Your task to perform on an android device: toggle javascript in the chrome app Image 0: 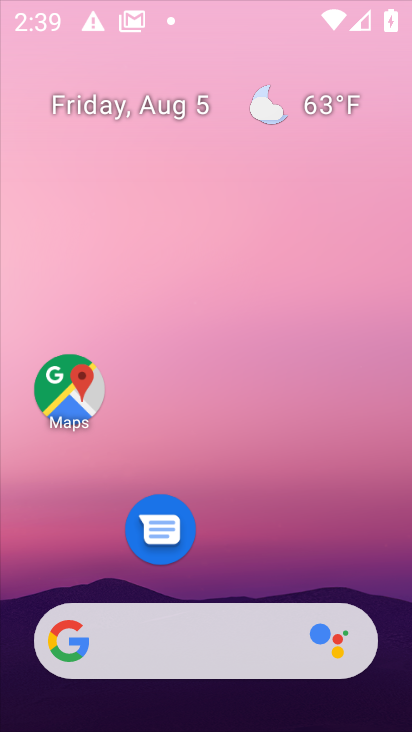
Step 0: click (244, 628)
Your task to perform on an android device: toggle javascript in the chrome app Image 1: 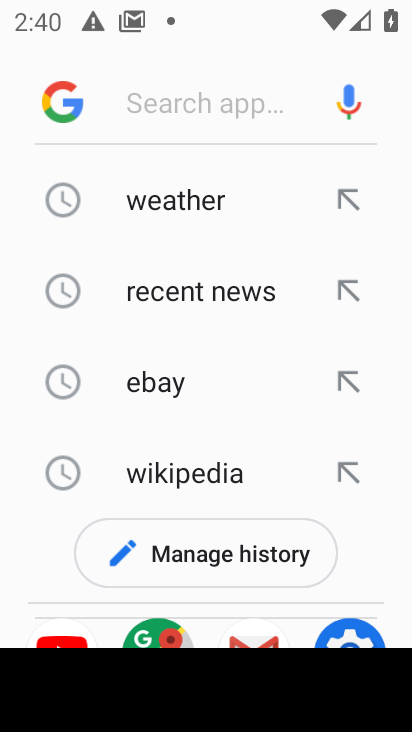
Step 1: press home button
Your task to perform on an android device: toggle javascript in the chrome app Image 2: 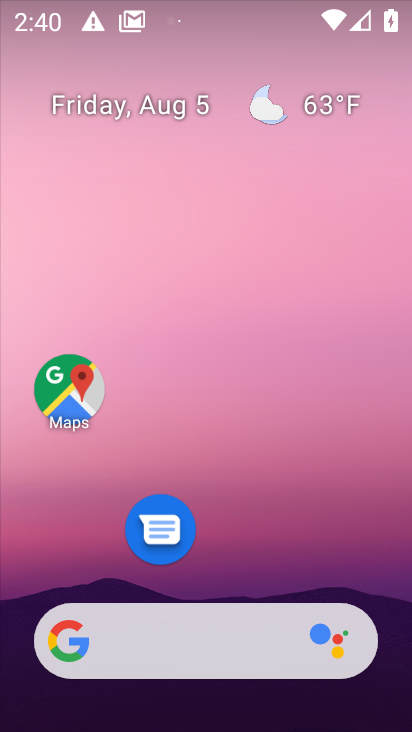
Step 2: drag from (133, 713) to (218, 216)
Your task to perform on an android device: toggle javascript in the chrome app Image 3: 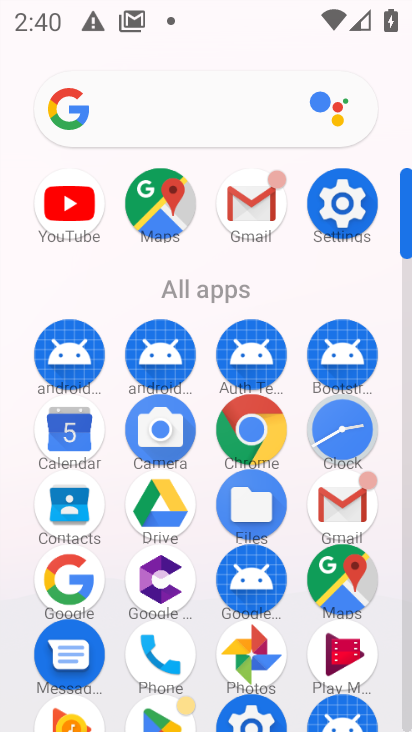
Step 3: click (262, 426)
Your task to perform on an android device: toggle javascript in the chrome app Image 4: 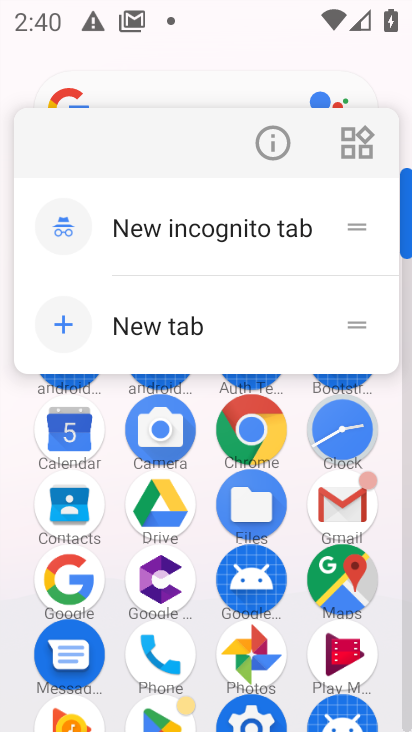
Step 4: click (262, 426)
Your task to perform on an android device: toggle javascript in the chrome app Image 5: 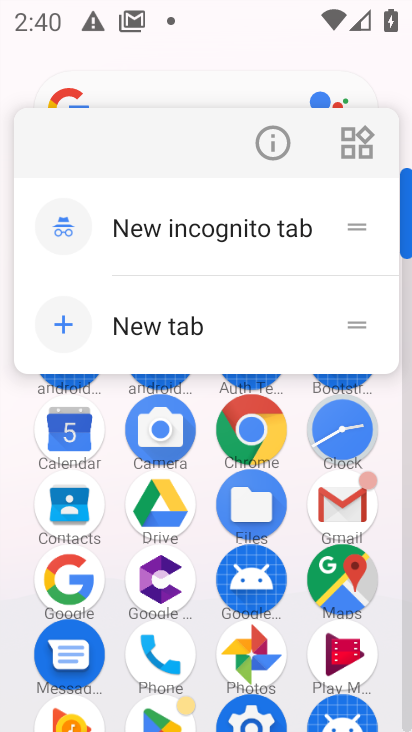
Step 5: click (262, 426)
Your task to perform on an android device: toggle javascript in the chrome app Image 6: 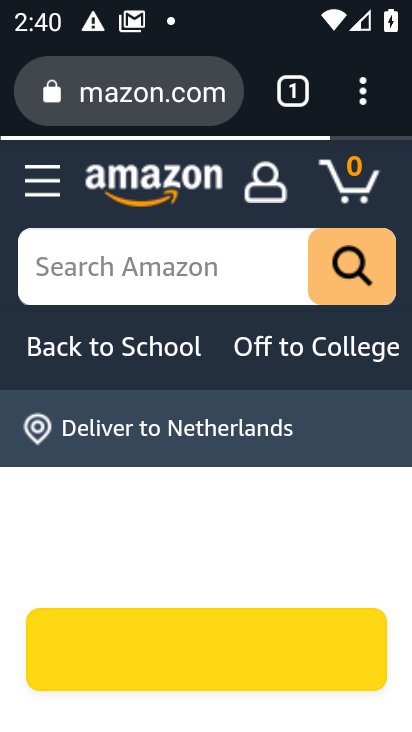
Step 6: click (355, 99)
Your task to perform on an android device: toggle javascript in the chrome app Image 7: 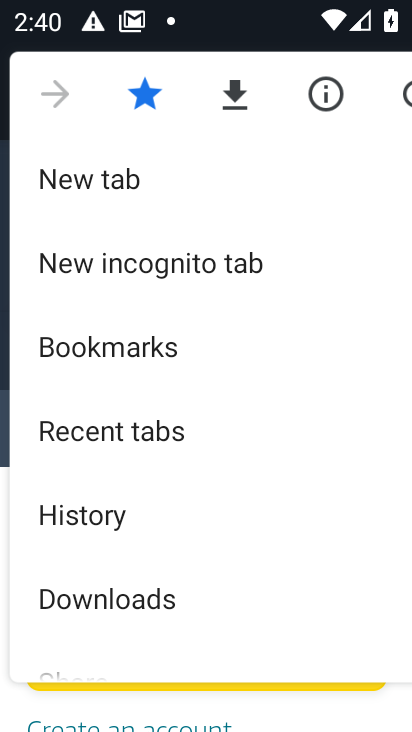
Step 7: drag from (214, 617) to (245, 135)
Your task to perform on an android device: toggle javascript in the chrome app Image 8: 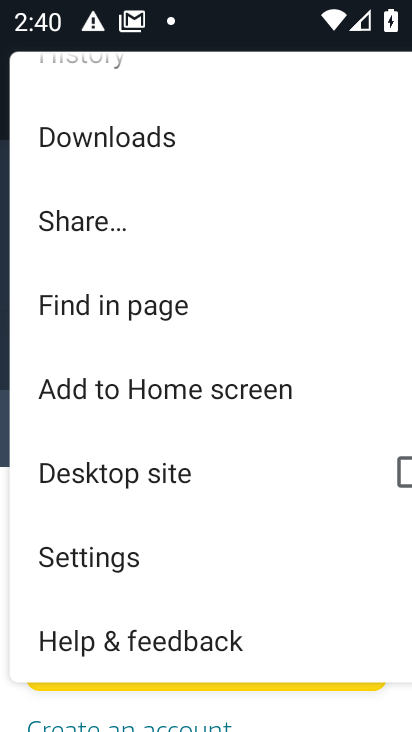
Step 8: click (173, 571)
Your task to perform on an android device: toggle javascript in the chrome app Image 9: 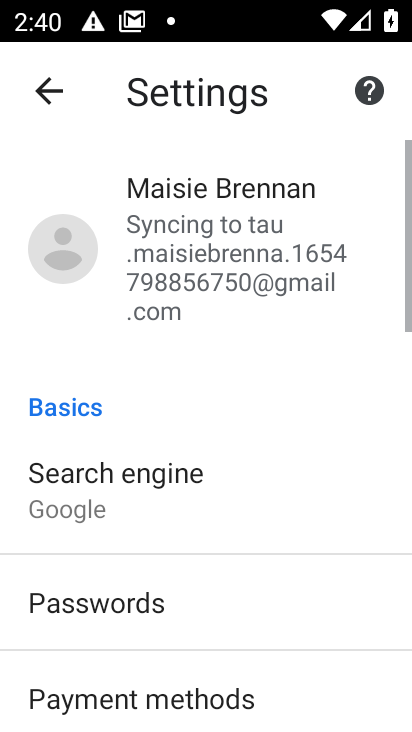
Step 9: drag from (264, 652) to (361, 0)
Your task to perform on an android device: toggle javascript in the chrome app Image 10: 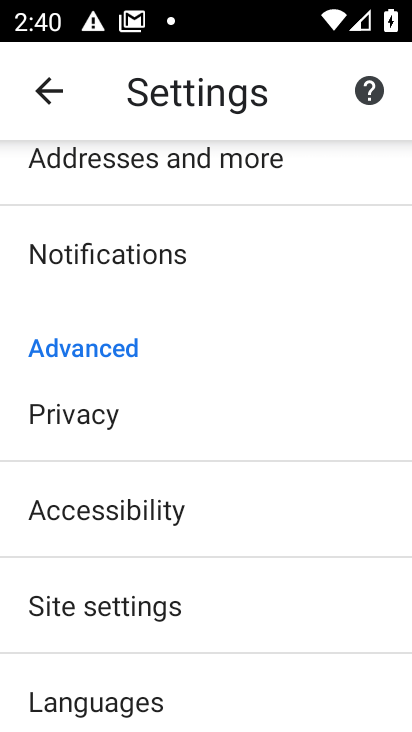
Step 10: click (128, 619)
Your task to perform on an android device: toggle javascript in the chrome app Image 11: 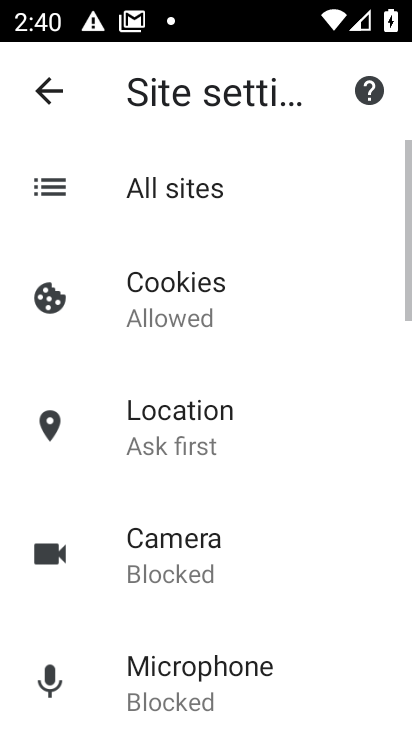
Step 11: drag from (234, 608) to (323, 12)
Your task to perform on an android device: toggle javascript in the chrome app Image 12: 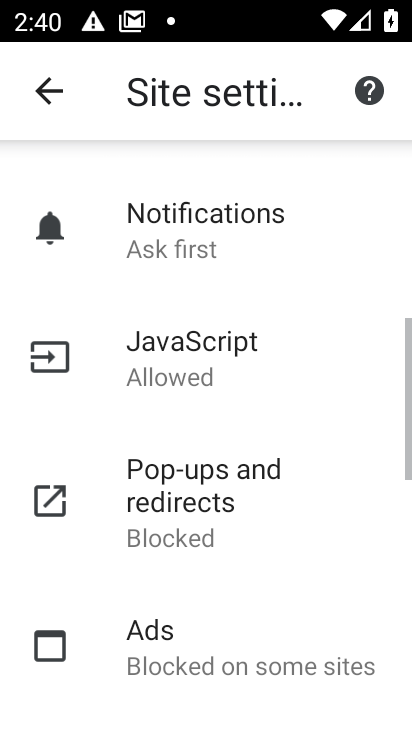
Step 12: click (224, 374)
Your task to perform on an android device: toggle javascript in the chrome app Image 13: 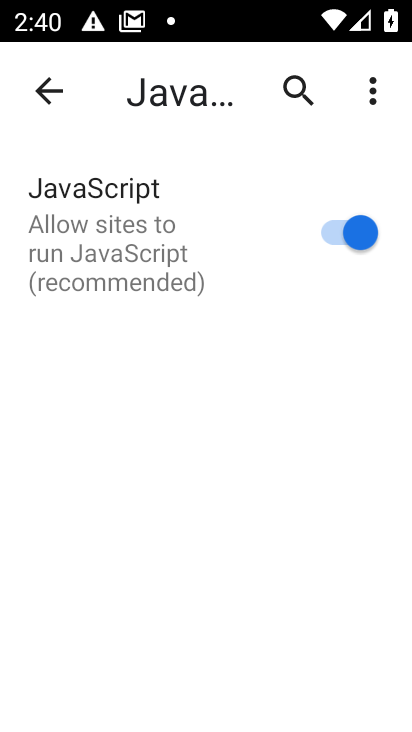
Step 13: click (344, 231)
Your task to perform on an android device: toggle javascript in the chrome app Image 14: 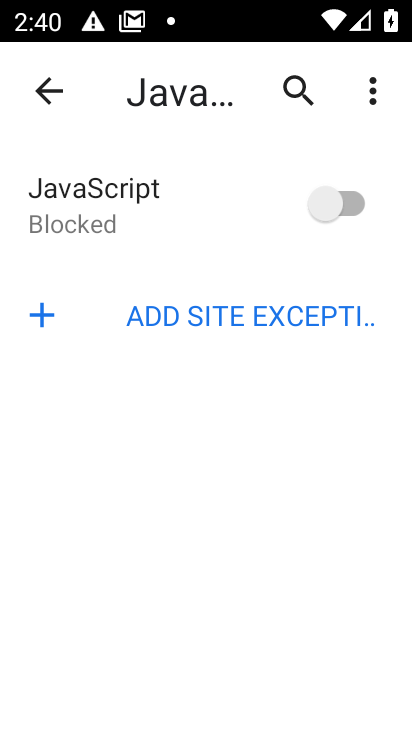
Step 14: task complete